Your task to perform on an android device: Search for panasonic triple a on amazon.com, select the first entry, add it to the cart, then select checkout. Image 0: 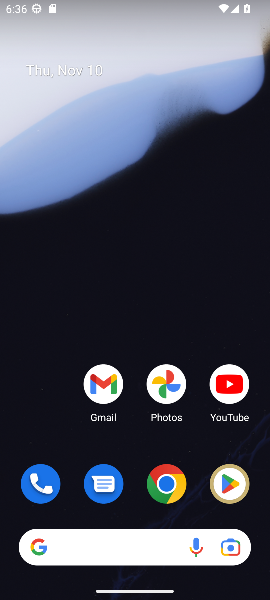
Step 0: click (170, 487)
Your task to perform on an android device: Search for panasonic triple a on amazon.com, select the first entry, add it to the cart, then select checkout. Image 1: 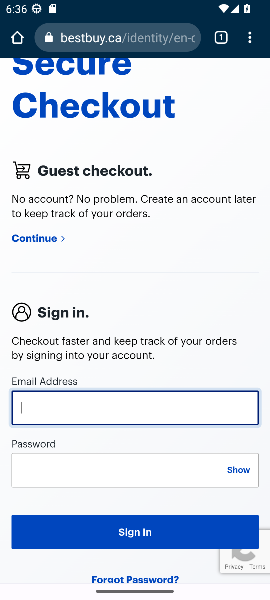
Step 1: click (102, 40)
Your task to perform on an android device: Search for panasonic triple a on amazon.com, select the first entry, add it to the cart, then select checkout. Image 2: 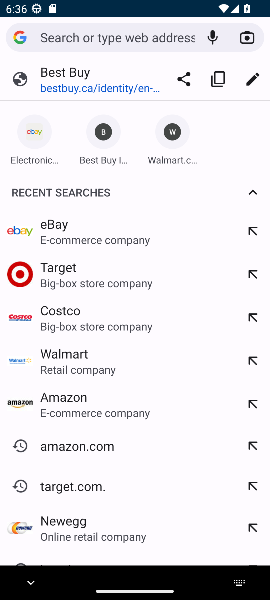
Step 2: click (47, 404)
Your task to perform on an android device: Search for panasonic triple a on amazon.com, select the first entry, add it to the cart, then select checkout. Image 3: 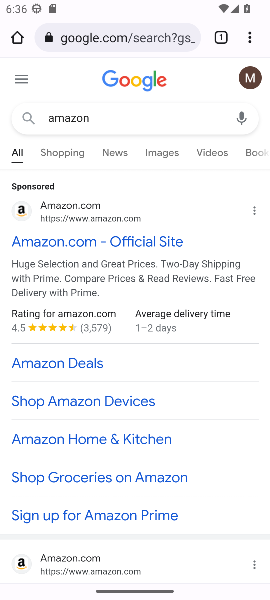
Step 3: drag from (74, 373) to (83, 159)
Your task to perform on an android device: Search for panasonic triple a on amazon.com, select the first entry, add it to the cart, then select checkout. Image 4: 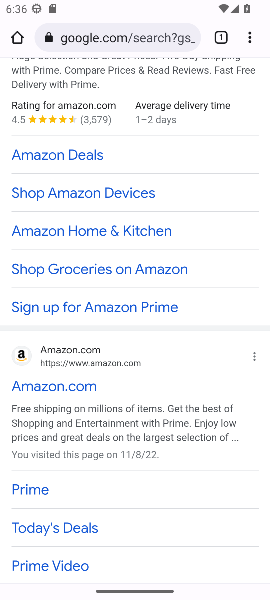
Step 4: click (75, 370)
Your task to perform on an android device: Search for panasonic triple a on amazon.com, select the first entry, add it to the cart, then select checkout. Image 5: 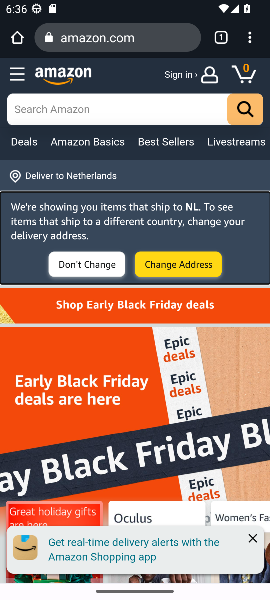
Step 5: click (49, 113)
Your task to perform on an android device: Search for panasonic triple a on amazon.com, select the first entry, add it to the cart, then select checkout. Image 6: 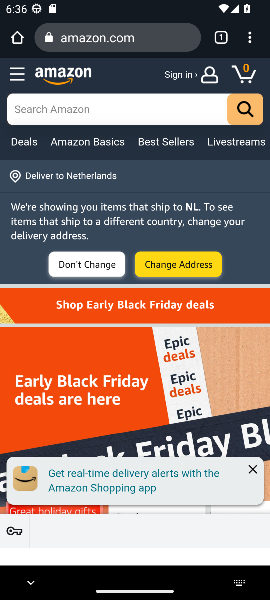
Step 6: type "panasonic triple a"
Your task to perform on an android device: Search for panasonic triple a on amazon.com, select the first entry, add it to the cart, then select checkout. Image 7: 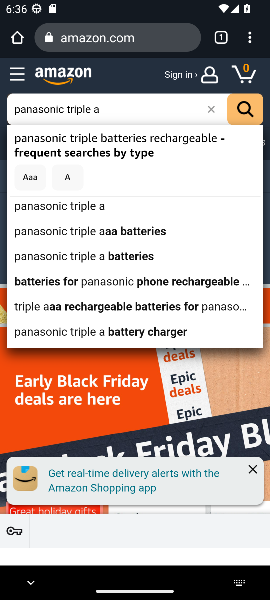
Step 7: click (70, 210)
Your task to perform on an android device: Search for panasonic triple a on amazon.com, select the first entry, add it to the cart, then select checkout. Image 8: 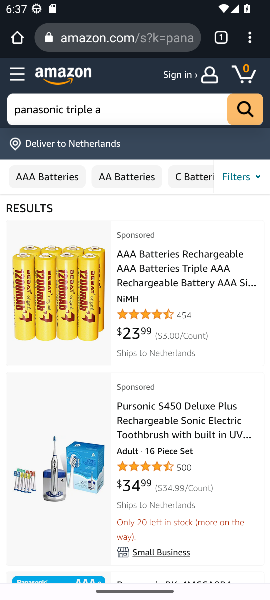
Step 8: task complete